Your task to perform on an android device: open device folders in google photos Image 0: 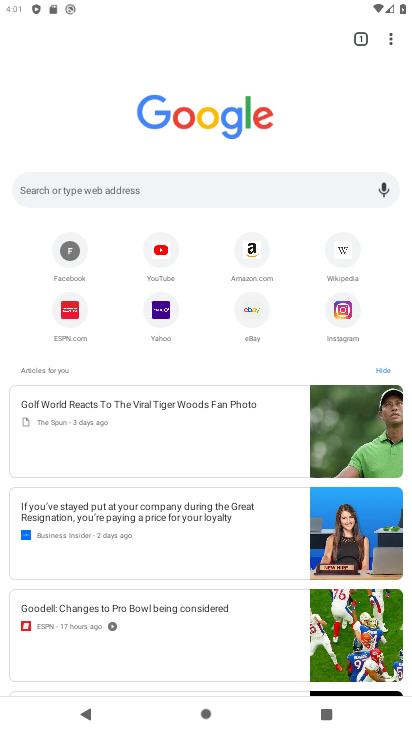
Step 0: press home button
Your task to perform on an android device: open device folders in google photos Image 1: 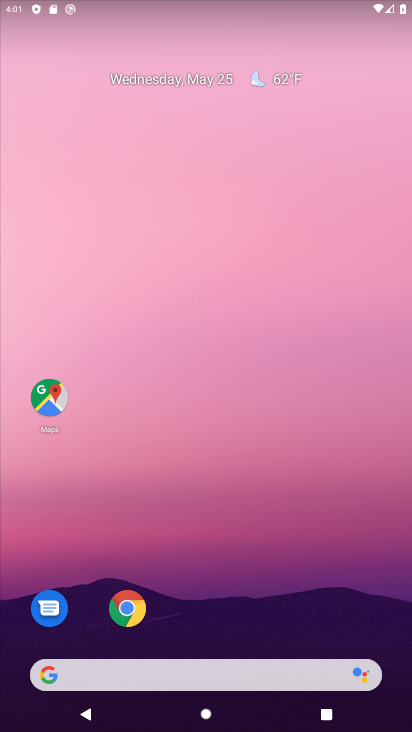
Step 1: drag from (255, 594) to (206, 159)
Your task to perform on an android device: open device folders in google photos Image 2: 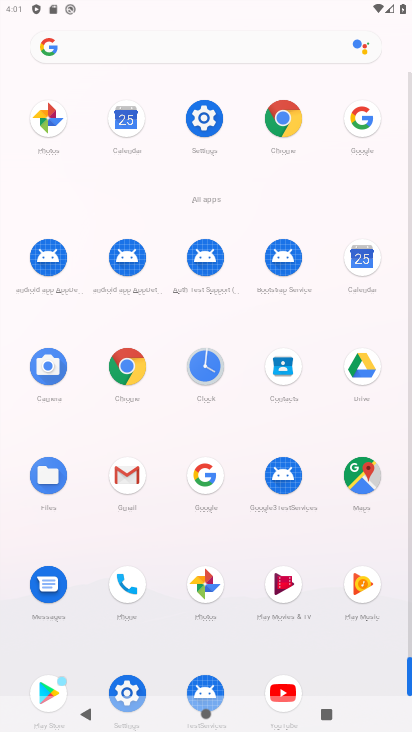
Step 2: click (48, 119)
Your task to perform on an android device: open device folders in google photos Image 3: 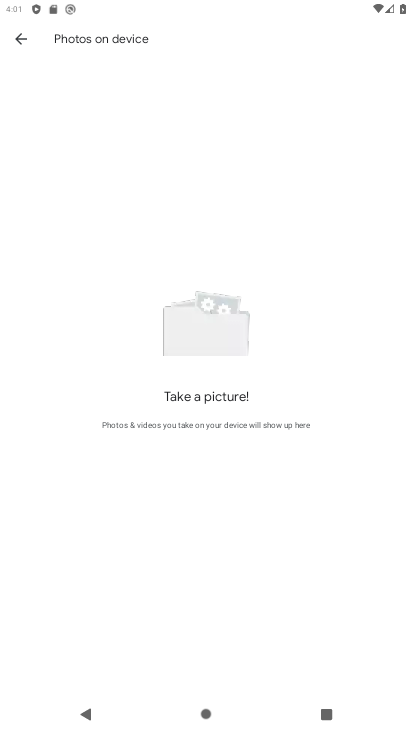
Step 3: click (22, 40)
Your task to perform on an android device: open device folders in google photos Image 4: 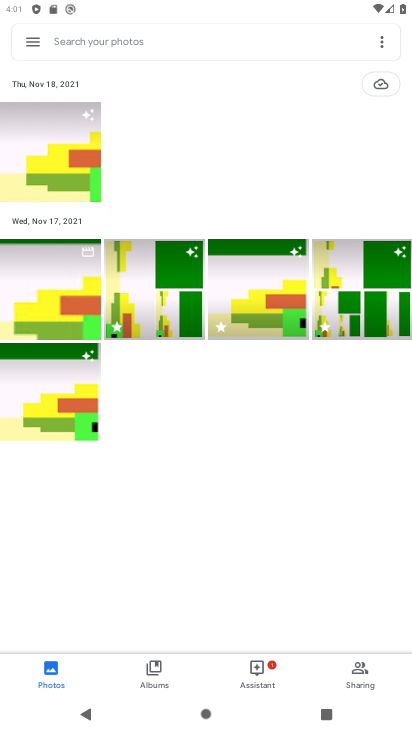
Step 4: click (32, 45)
Your task to perform on an android device: open device folders in google photos Image 5: 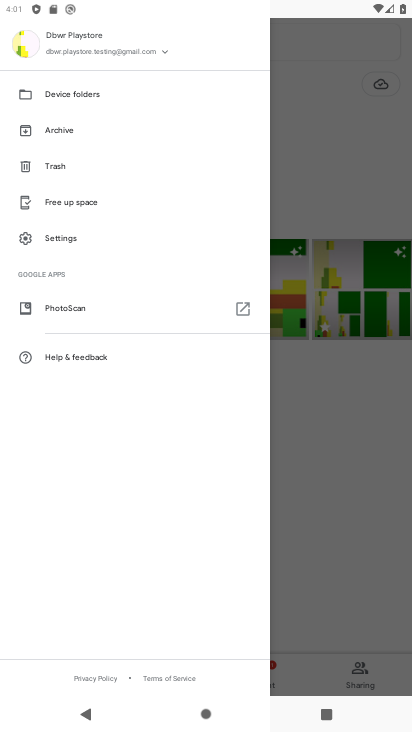
Step 5: click (58, 97)
Your task to perform on an android device: open device folders in google photos Image 6: 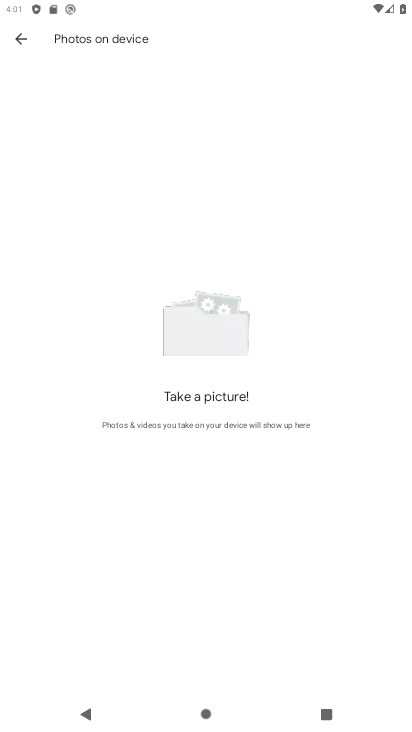
Step 6: task complete